Your task to perform on an android device: Open display settings Image 0: 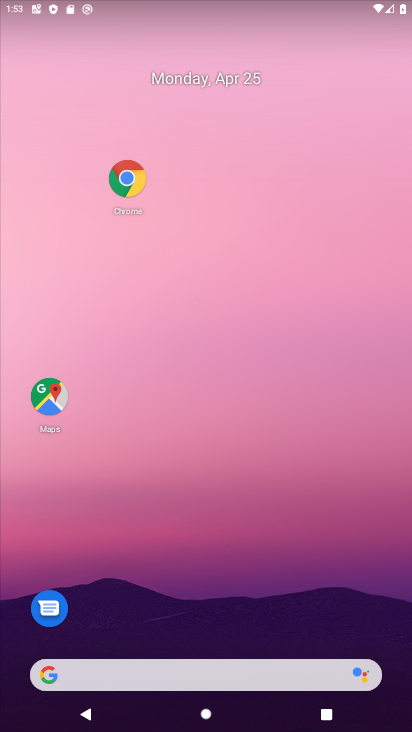
Step 0: drag from (211, 295) to (220, 202)
Your task to perform on an android device: Open display settings Image 1: 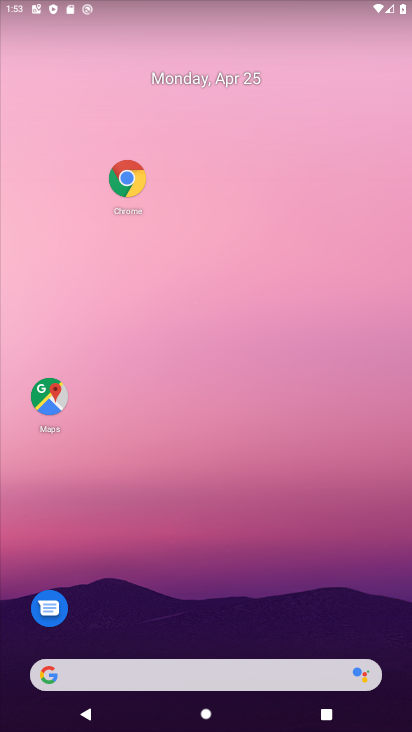
Step 1: drag from (191, 635) to (178, 183)
Your task to perform on an android device: Open display settings Image 2: 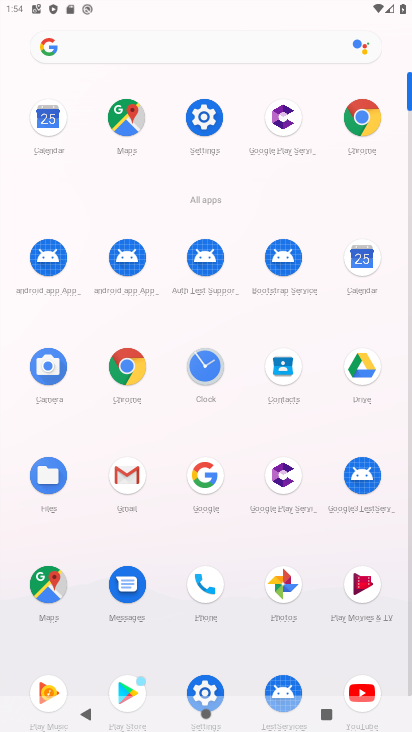
Step 2: click (195, 692)
Your task to perform on an android device: Open display settings Image 3: 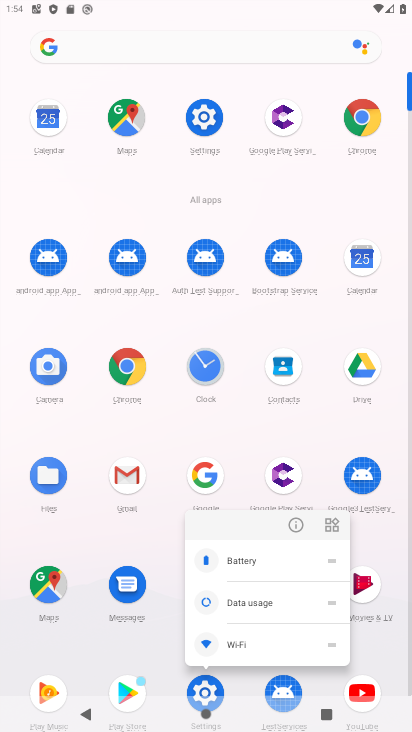
Step 3: click (293, 528)
Your task to perform on an android device: Open display settings Image 4: 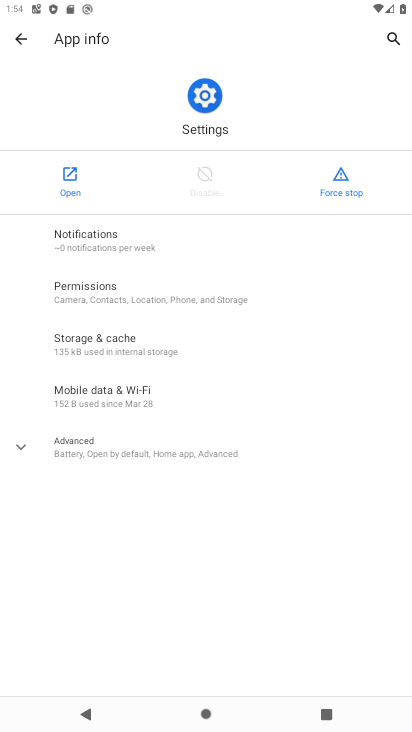
Step 4: click (71, 187)
Your task to perform on an android device: Open display settings Image 5: 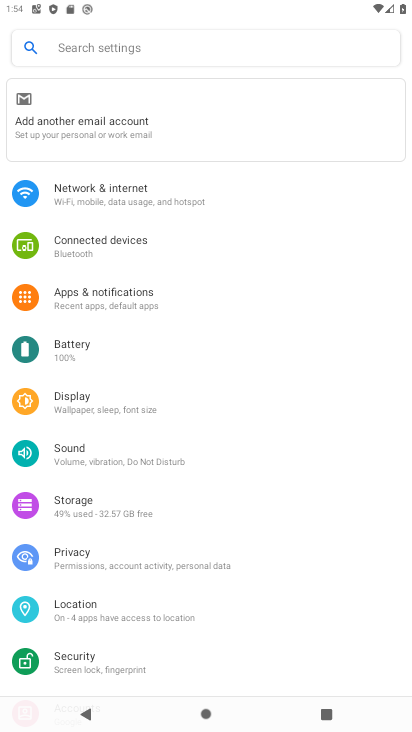
Step 5: click (111, 399)
Your task to perform on an android device: Open display settings Image 6: 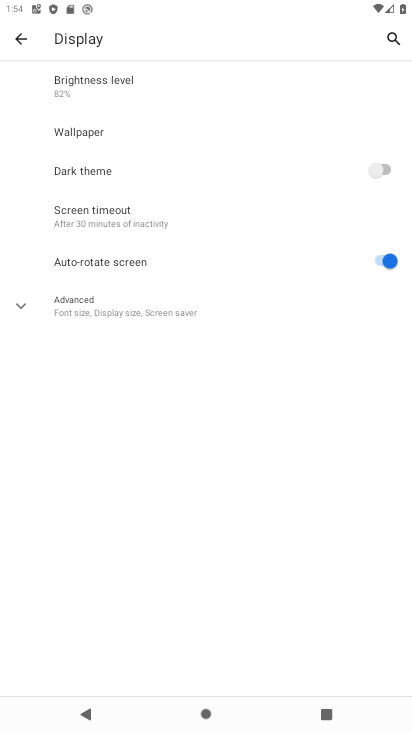
Step 6: task complete